Your task to perform on an android device: Search for Italian restaurants on Maps Image 0: 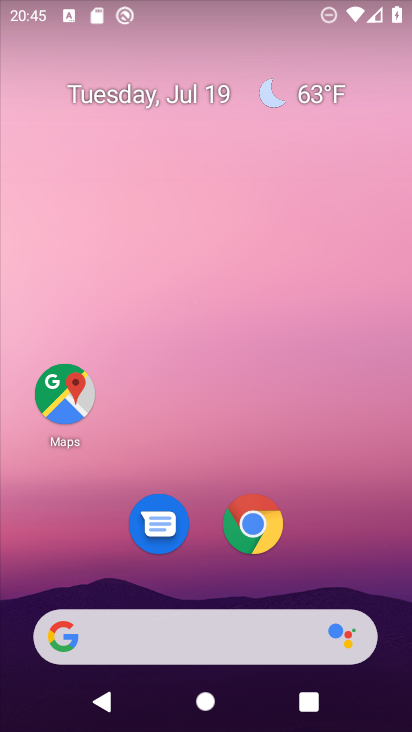
Step 0: click (75, 396)
Your task to perform on an android device: Search for Italian restaurants on Maps Image 1: 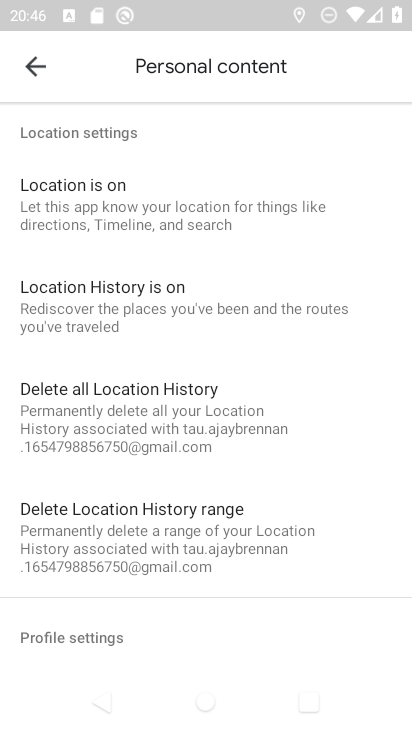
Step 1: click (36, 61)
Your task to perform on an android device: Search for Italian restaurants on Maps Image 2: 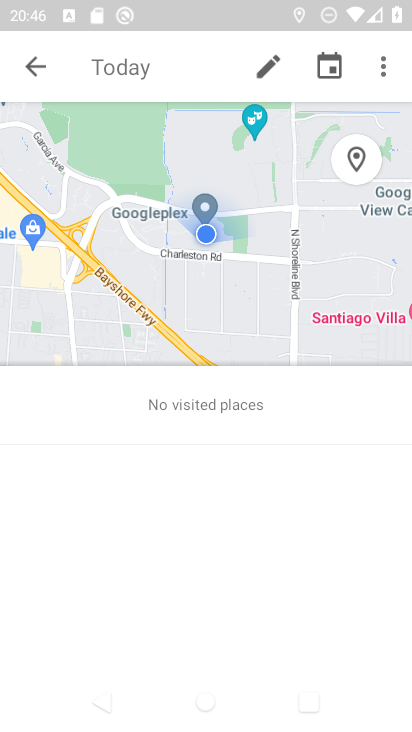
Step 2: click (36, 61)
Your task to perform on an android device: Search for Italian restaurants on Maps Image 3: 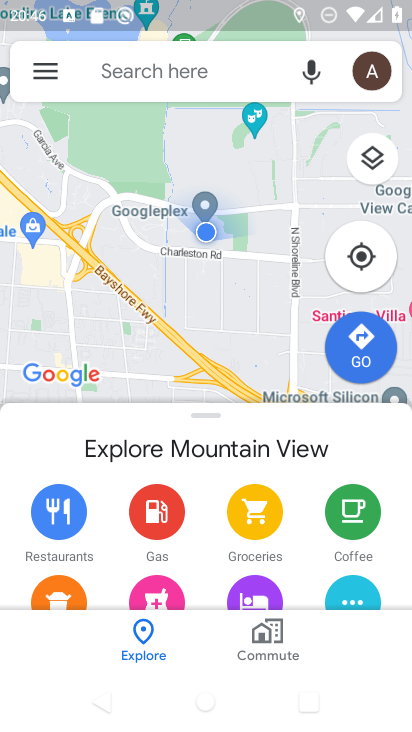
Step 3: click (136, 63)
Your task to perform on an android device: Search for Italian restaurants on Maps Image 4: 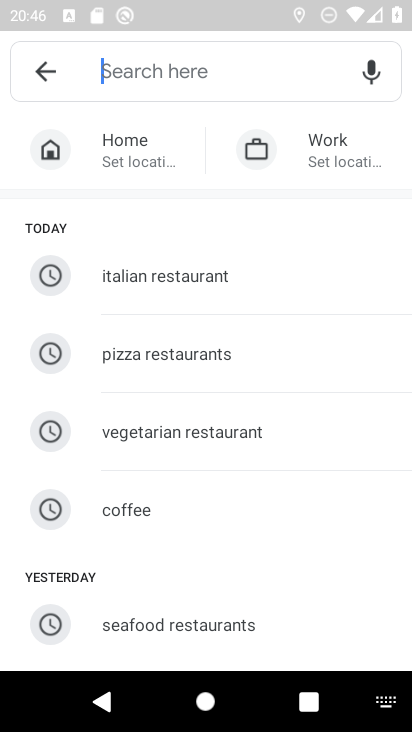
Step 4: click (200, 273)
Your task to perform on an android device: Search for Italian restaurants on Maps Image 5: 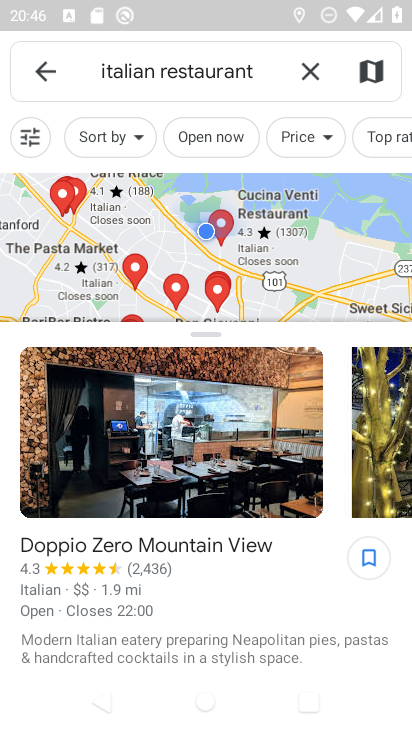
Step 5: task complete